Your task to perform on an android device: Open Google Maps Image 0: 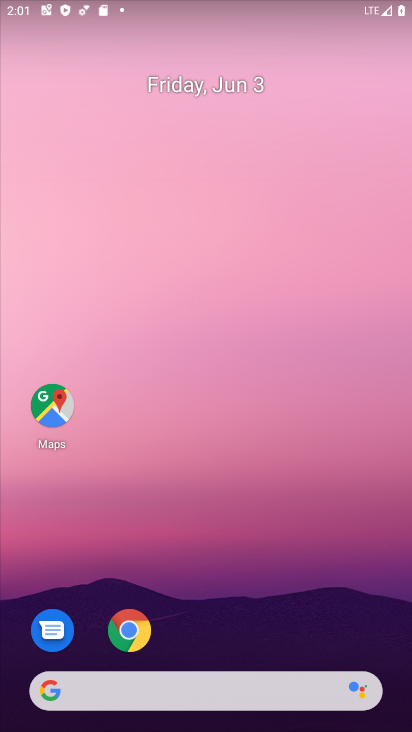
Step 0: drag from (227, 727) to (236, 164)
Your task to perform on an android device: Open Google Maps Image 1: 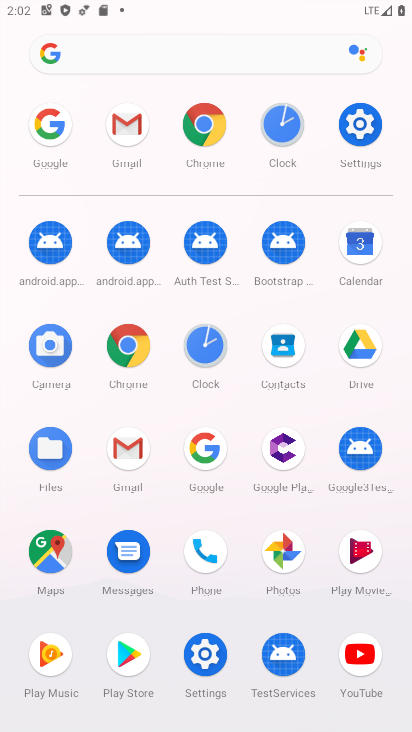
Step 1: click (52, 555)
Your task to perform on an android device: Open Google Maps Image 2: 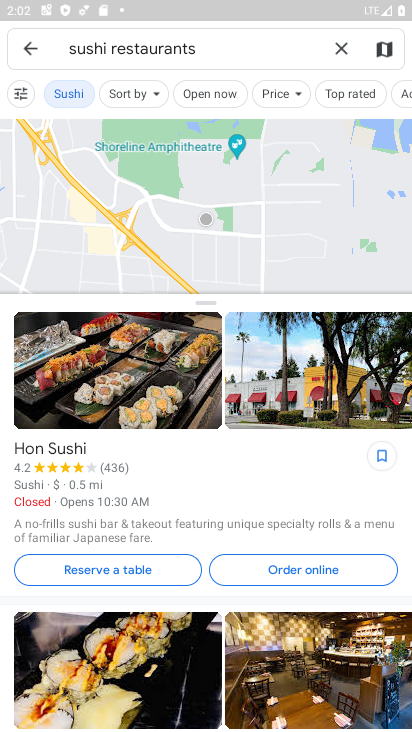
Step 2: task complete